Your task to perform on an android device: Open CNN.com Image 0: 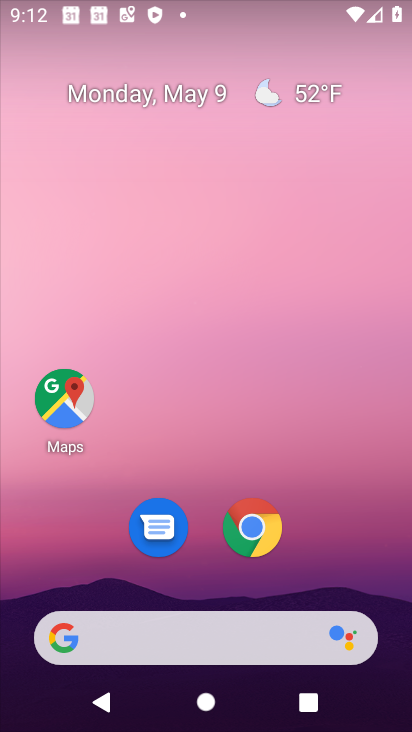
Step 0: drag from (202, 575) to (226, 34)
Your task to perform on an android device: Open CNN.com Image 1: 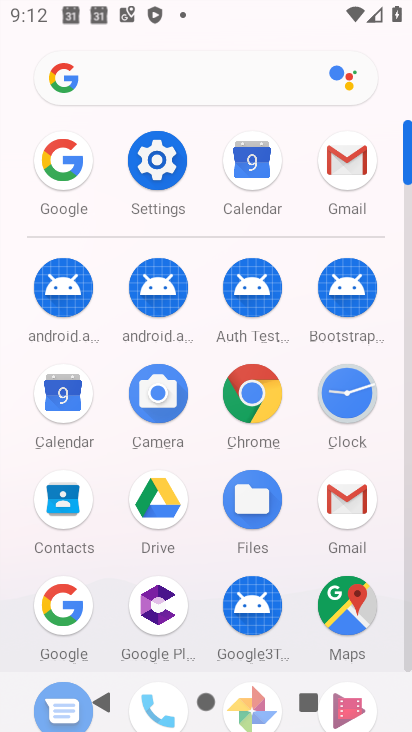
Step 1: click (65, 606)
Your task to perform on an android device: Open CNN.com Image 2: 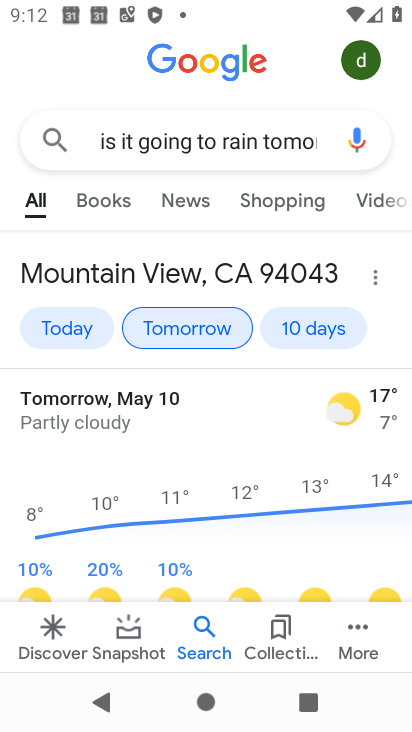
Step 2: click (294, 150)
Your task to perform on an android device: Open CNN.com Image 3: 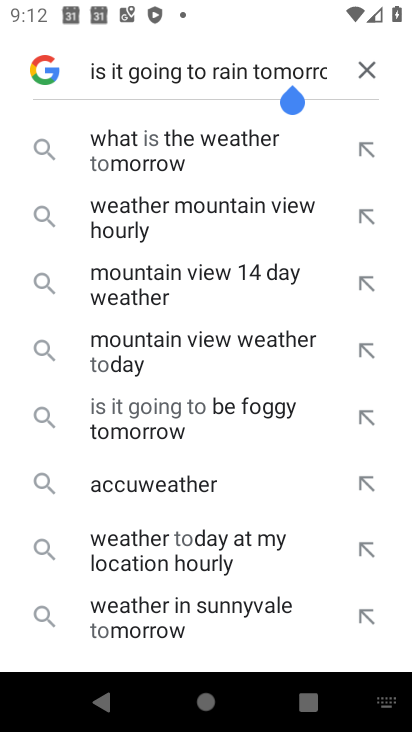
Step 3: click (369, 68)
Your task to perform on an android device: Open CNN.com Image 4: 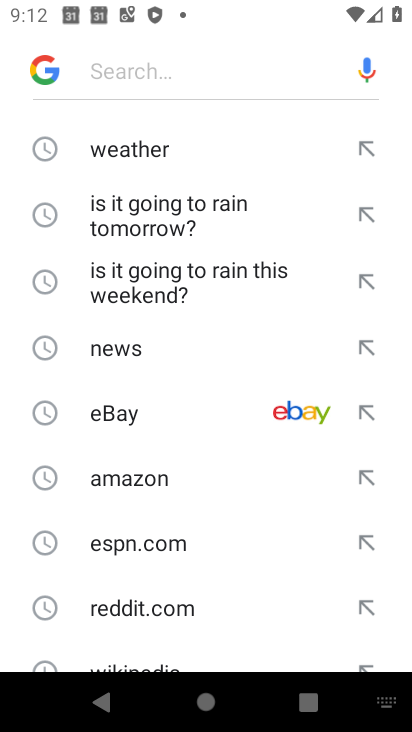
Step 4: type "cnn.com"
Your task to perform on an android device: Open CNN.com Image 5: 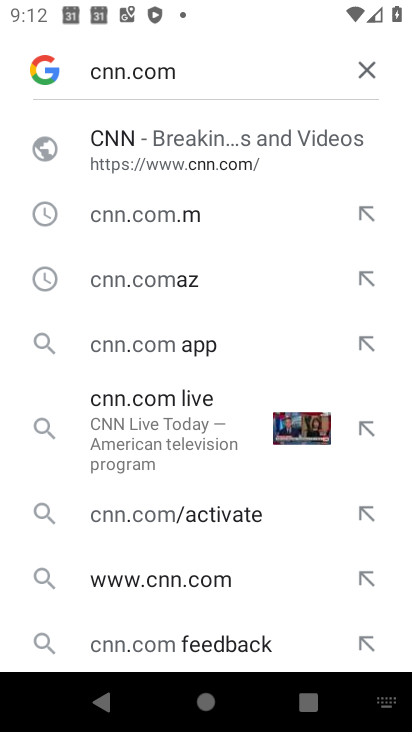
Step 5: click (171, 162)
Your task to perform on an android device: Open CNN.com Image 6: 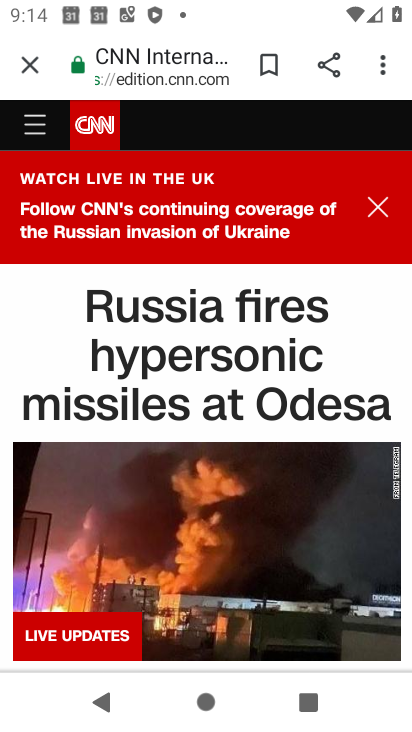
Step 6: task complete